Your task to perform on an android device: Show me the alarms in the clock app Image 0: 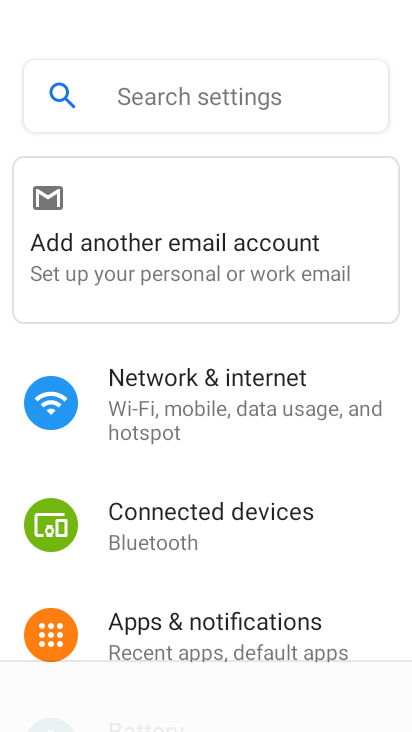
Step 0: drag from (353, 612) to (358, 121)
Your task to perform on an android device: Show me the alarms in the clock app Image 1: 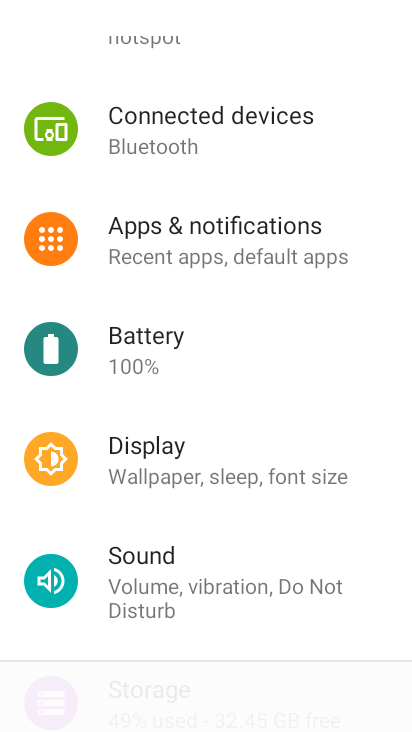
Step 1: press home button
Your task to perform on an android device: Show me the alarms in the clock app Image 2: 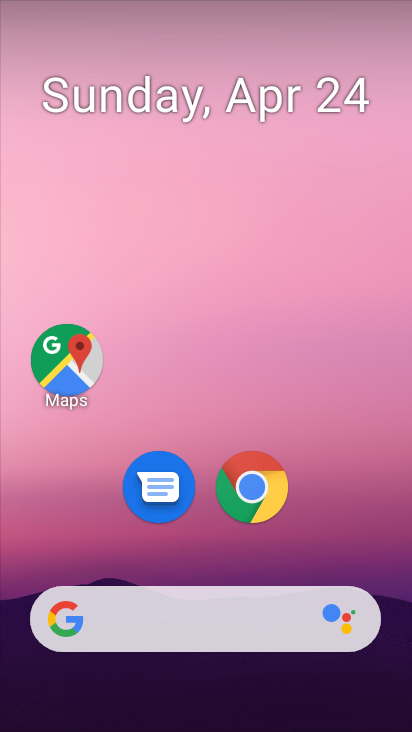
Step 2: drag from (349, 529) to (318, 105)
Your task to perform on an android device: Show me the alarms in the clock app Image 3: 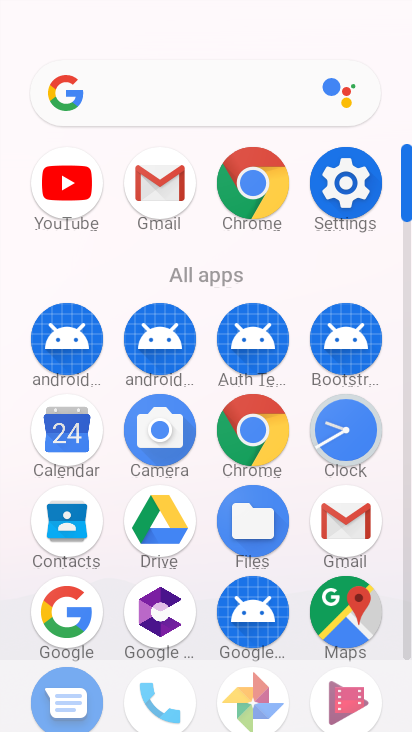
Step 3: click (353, 430)
Your task to perform on an android device: Show me the alarms in the clock app Image 4: 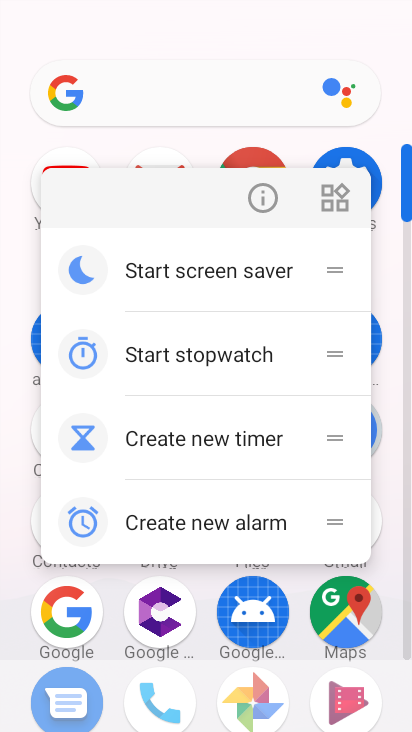
Step 4: click (252, 39)
Your task to perform on an android device: Show me the alarms in the clock app Image 5: 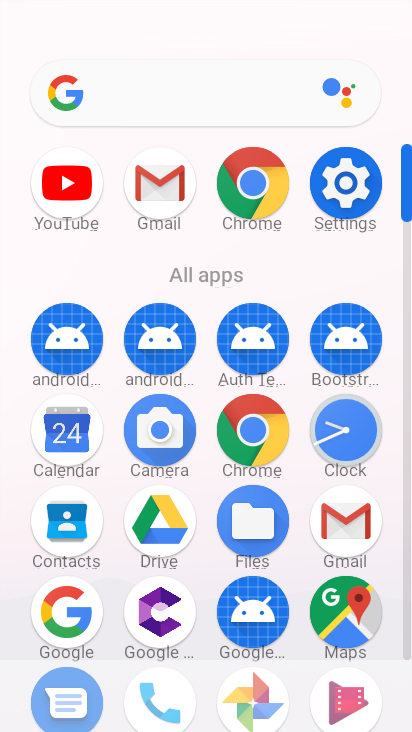
Step 5: click (252, 39)
Your task to perform on an android device: Show me the alarms in the clock app Image 6: 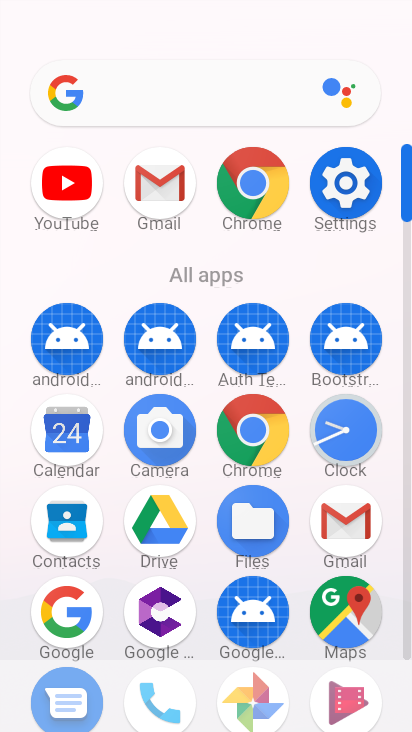
Step 6: click (252, 39)
Your task to perform on an android device: Show me the alarms in the clock app Image 7: 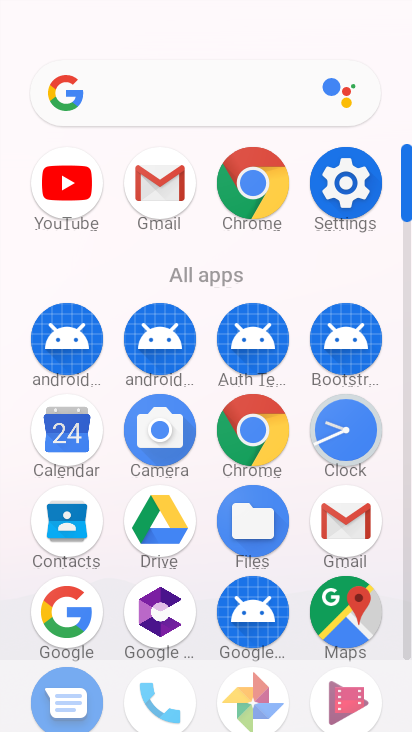
Step 7: click (341, 427)
Your task to perform on an android device: Show me the alarms in the clock app Image 8: 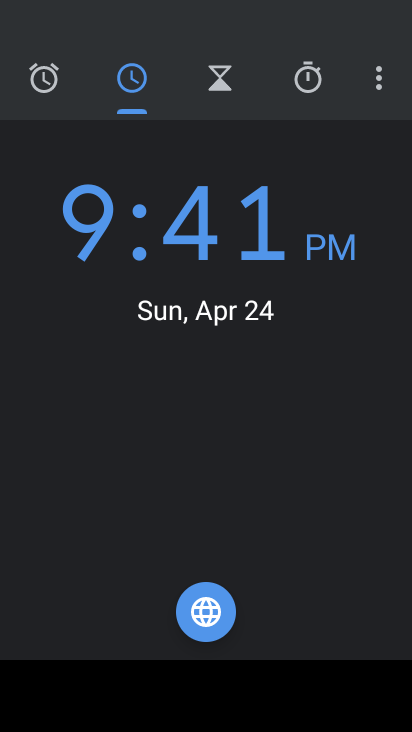
Step 8: click (42, 67)
Your task to perform on an android device: Show me the alarms in the clock app Image 9: 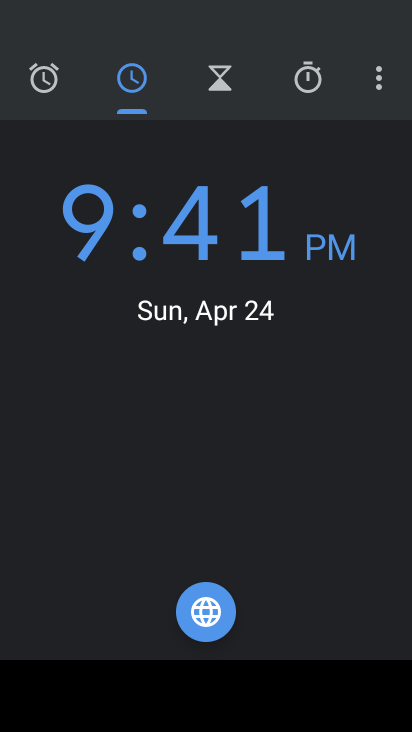
Step 9: click (39, 85)
Your task to perform on an android device: Show me the alarms in the clock app Image 10: 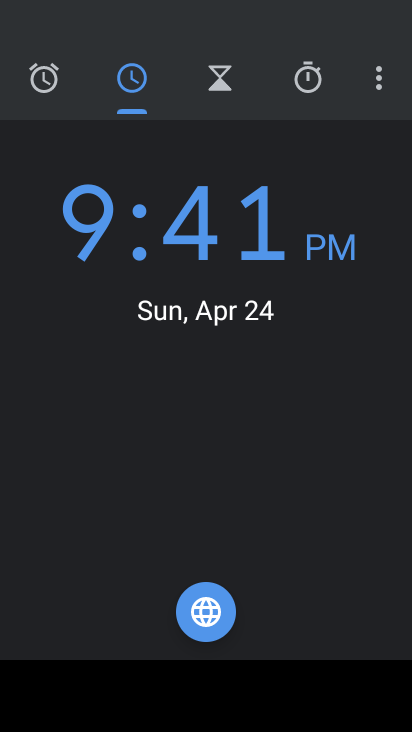
Step 10: click (44, 79)
Your task to perform on an android device: Show me the alarms in the clock app Image 11: 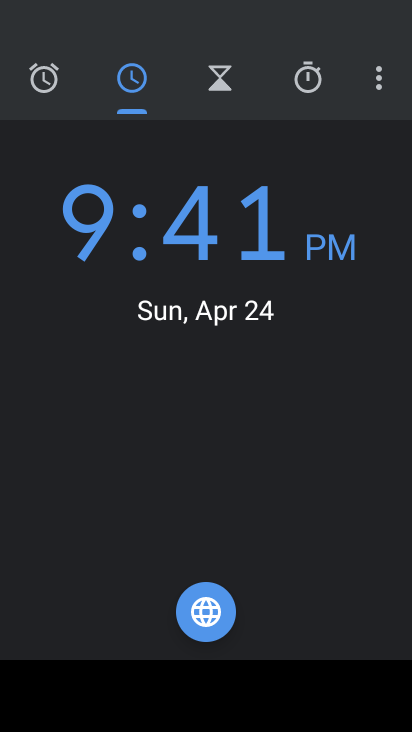
Step 11: click (36, 85)
Your task to perform on an android device: Show me the alarms in the clock app Image 12: 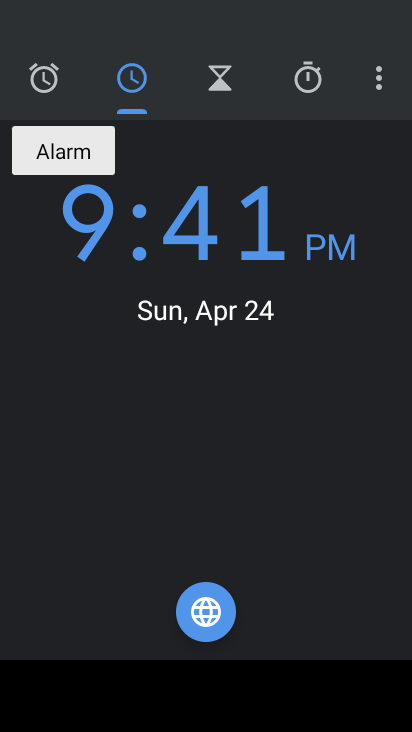
Step 12: click (44, 81)
Your task to perform on an android device: Show me the alarms in the clock app Image 13: 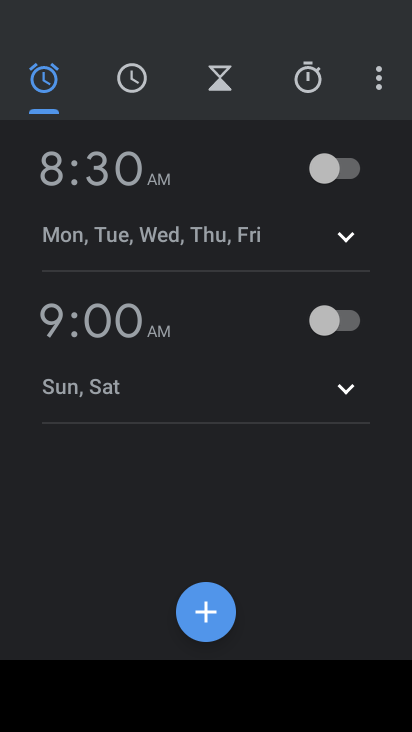
Step 13: task complete